Your task to perform on an android device: open a bookmark in the chrome app Image 0: 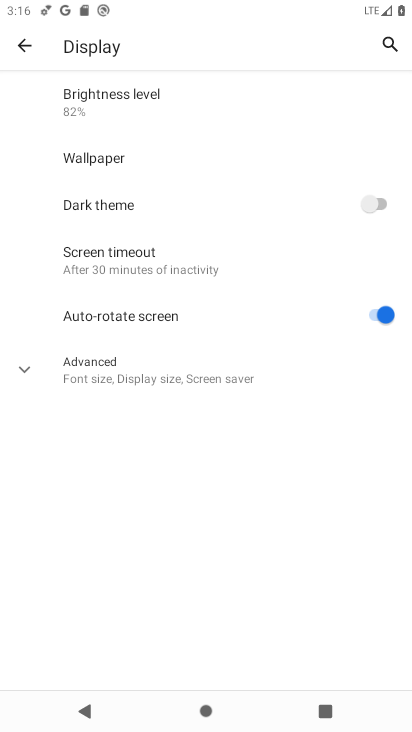
Step 0: press home button
Your task to perform on an android device: open a bookmark in the chrome app Image 1: 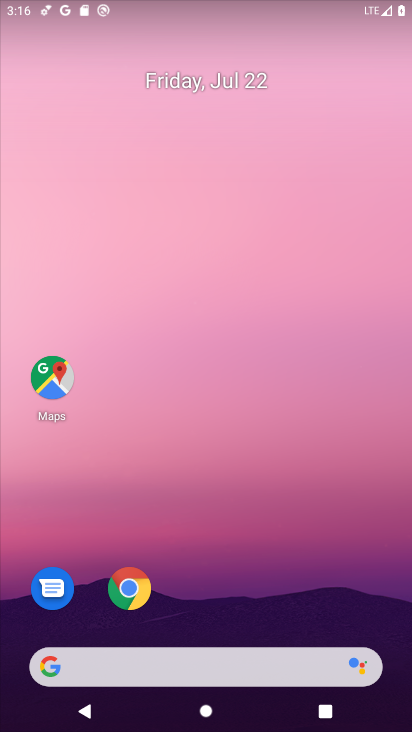
Step 1: drag from (218, 602) to (195, 91)
Your task to perform on an android device: open a bookmark in the chrome app Image 2: 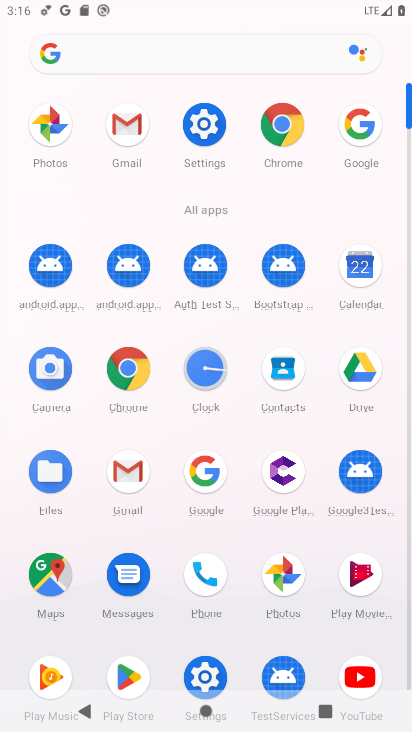
Step 2: click (117, 371)
Your task to perform on an android device: open a bookmark in the chrome app Image 3: 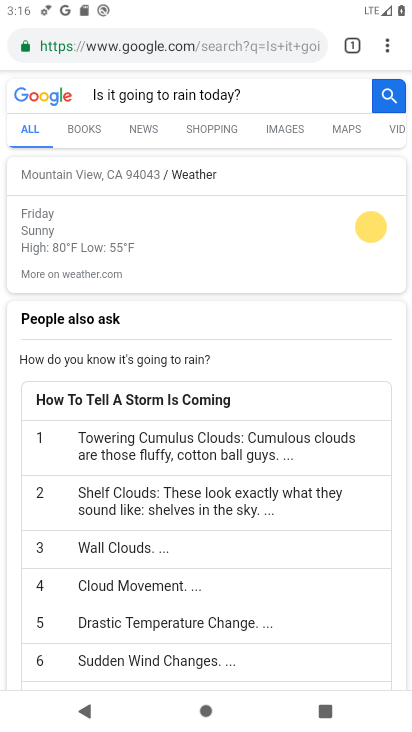
Step 3: task complete